Your task to perform on an android device: Open Youtube and go to the subscriptions tab Image 0: 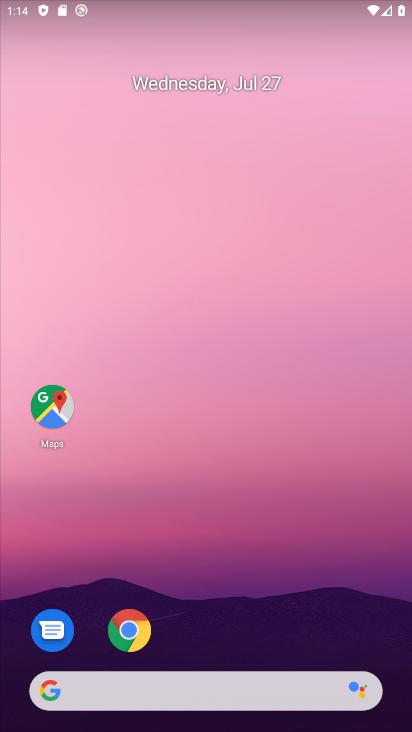
Step 0: drag from (370, 651) to (341, 104)
Your task to perform on an android device: Open Youtube and go to the subscriptions tab Image 1: 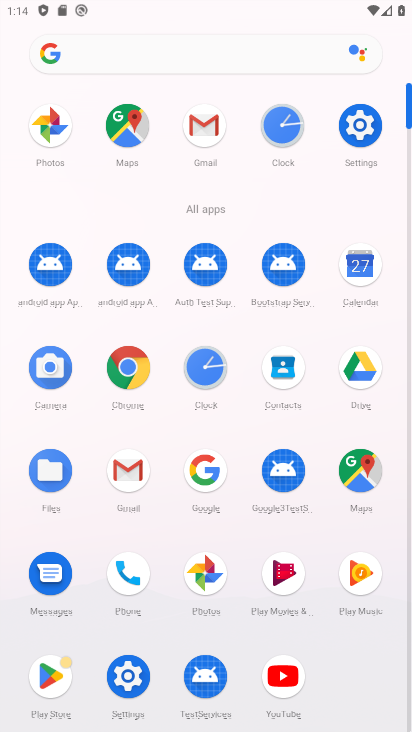
Step 1: click (282, 676)
Your task to perform on an android device: Open Youtube and go to the subscriptions tab Image 2: 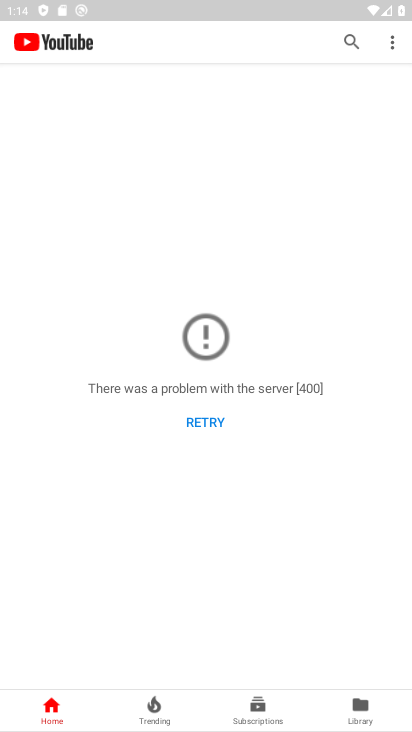
Step 2: click (254, 705)
Your task to perform on an android device: Open Youtube and go to the subscriptions tab Image 3: 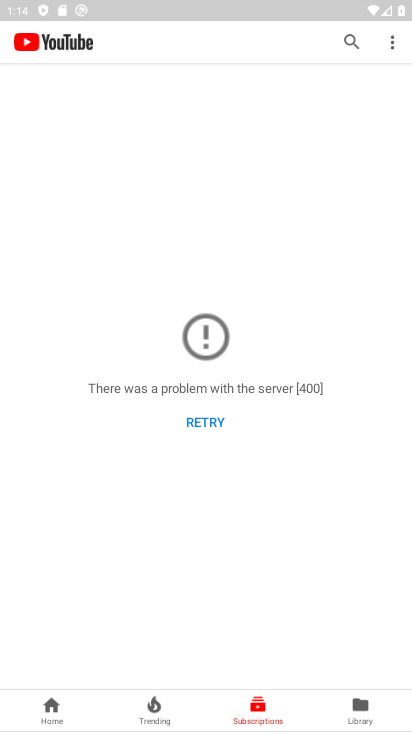
Step 3: task complete